Your task to perform on an android device: turn vacation reply on in the gmail app Image 0: 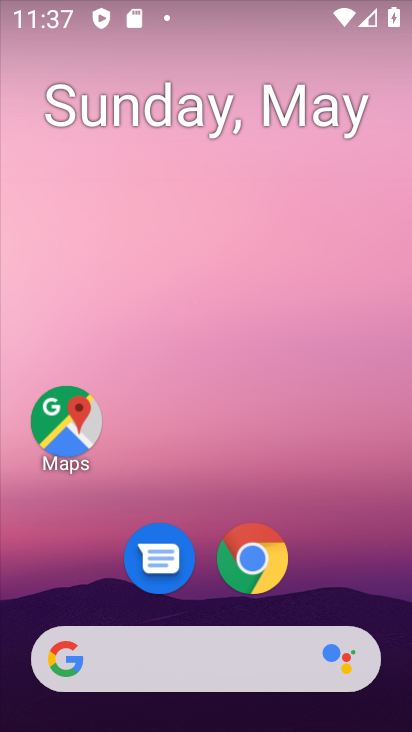
Step 0: drag from (359, 572) to (330, 86)
Your task to perform on an android device: turn vacation reply on in the gmail app Image 1: 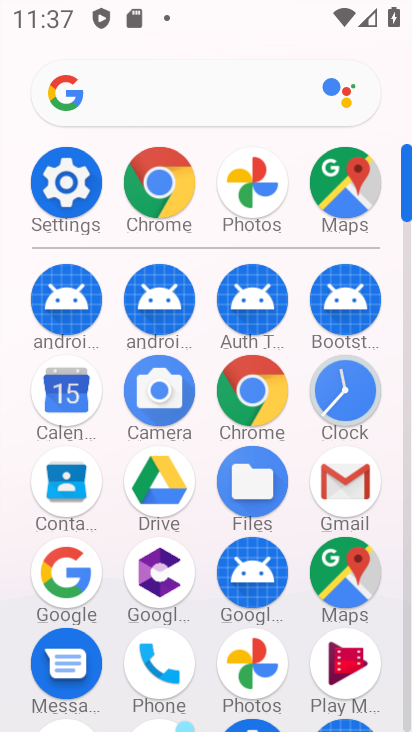
Step 1: click (332, 489)
Your task to perform on an android device: turn vacation reply on in the gmail app Image 2: 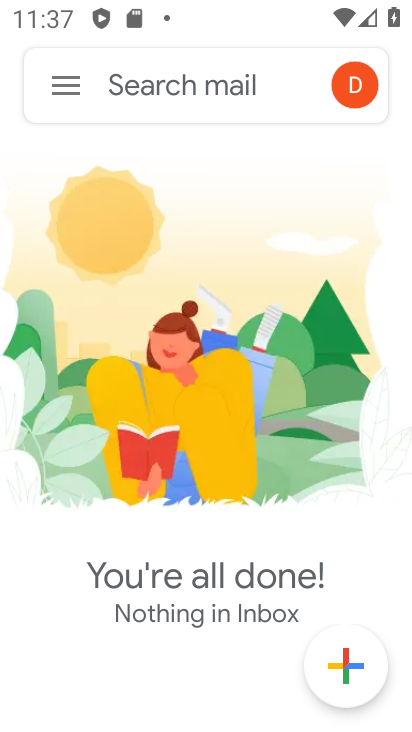
Step 2: click (48, 84)
Your task to perform on an android device: turn vacation reply on in the gmail app Image 3: 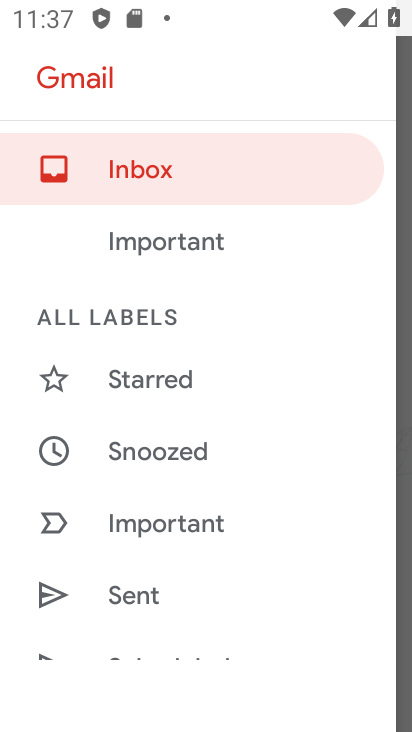
Step 3: drag from (287, 577) to (314, 366)
Your task to perform on an android device: turn vacation reply on in the gmail app Image 4: 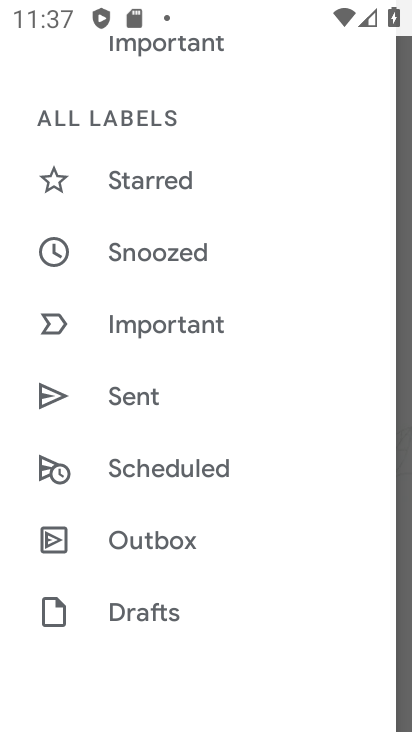
Step 4: drag from (283, 573) to (303, 279)
Your task to perform on an android device: turn vacation reply on in the gmail app Image 5: 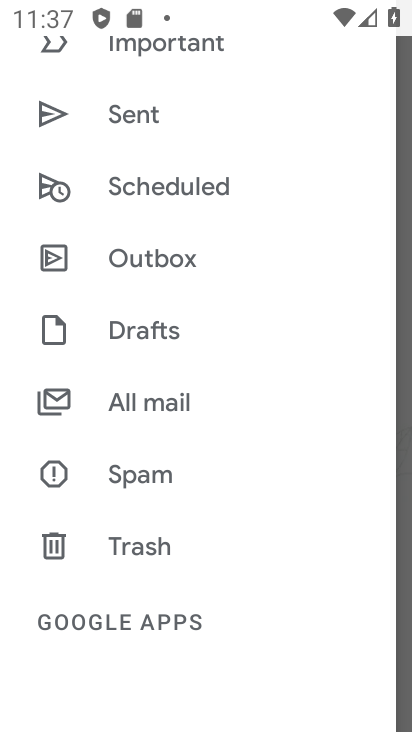
Step 5: drag from (285, 590) to (296, 375)
Your task to perform on an android device: turn vacation reply on in the gmail app Image 6: 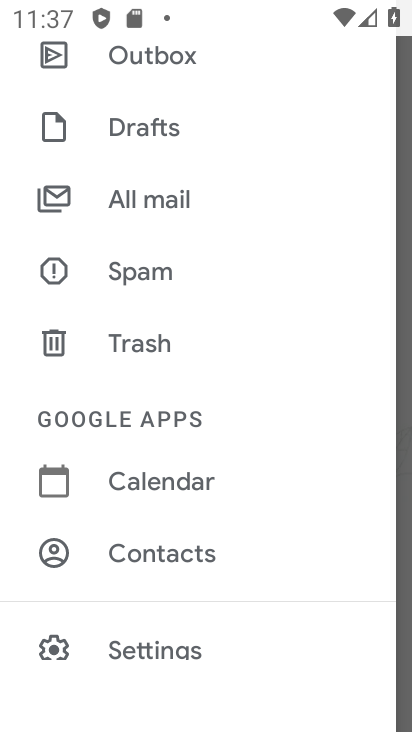
Step 6: drag from (281, 590) to (288, 412)
Your task to perform on an android device: turn vacation reply on in the gmail app Image 7: 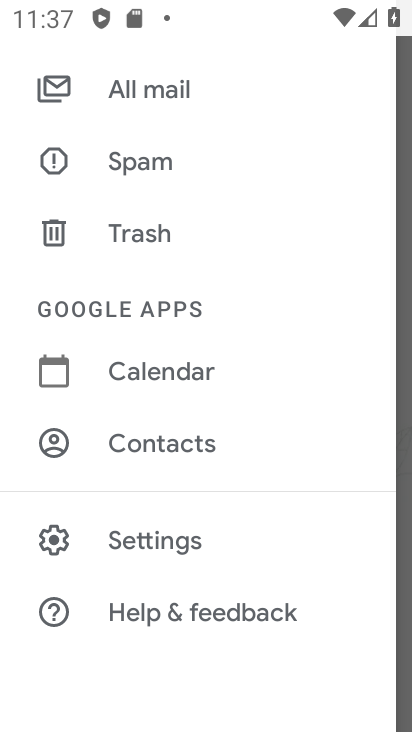
Step 7: click (173, 546)
Your task to perform on an android device: turn vacation reply on in the gmail app Image 8: 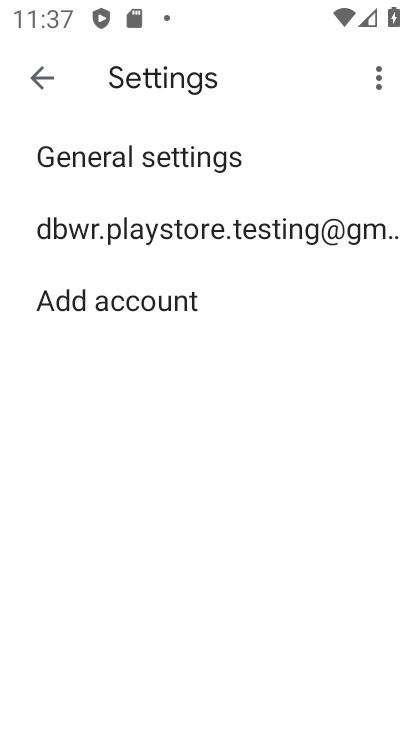
Step 8: click (193, 222)
Your task to perform on an android device: turn vacation reply on in the gmail app Image 9: 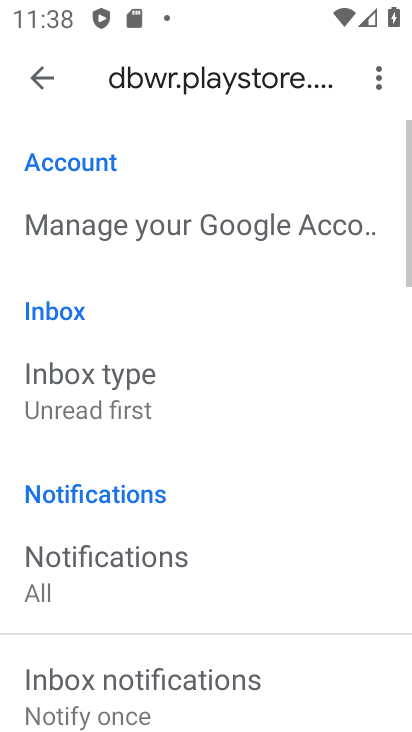
Step 9: drag from (298, 662) to (324, 382)
Your task to perform on an android device: turn vacation reply on in the gmail app Image 10: 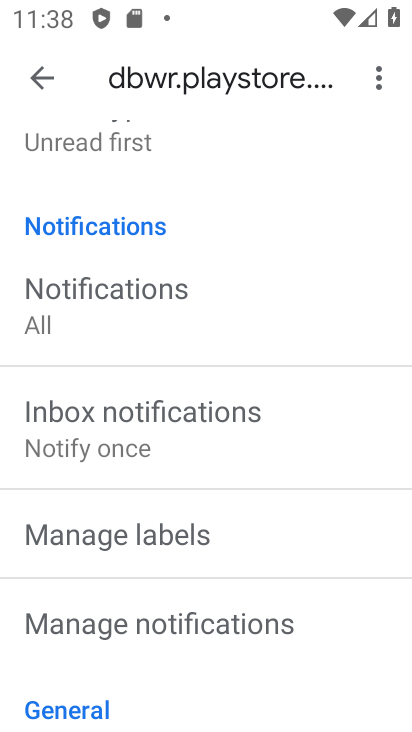
Step 10: drag from (302, 653) to (321, 473)
Your task to perform on an android device: turn vacation reply on in the gmail app Image 11: 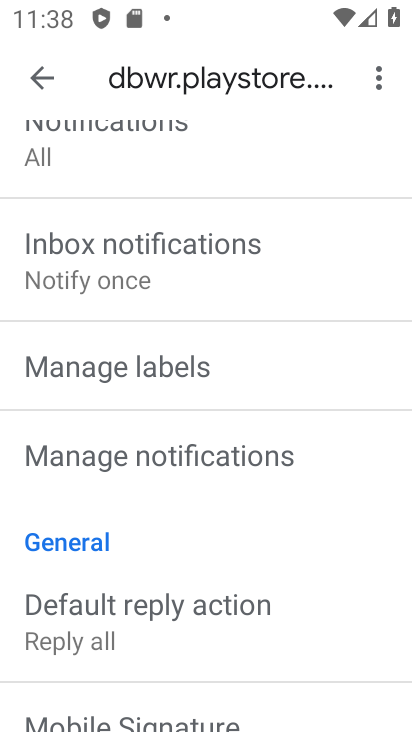
Step 11: drag from (349, 645) to (359, 314)
Your task to perform on an android device: turn vacation reply on in the gmail app Image 12: 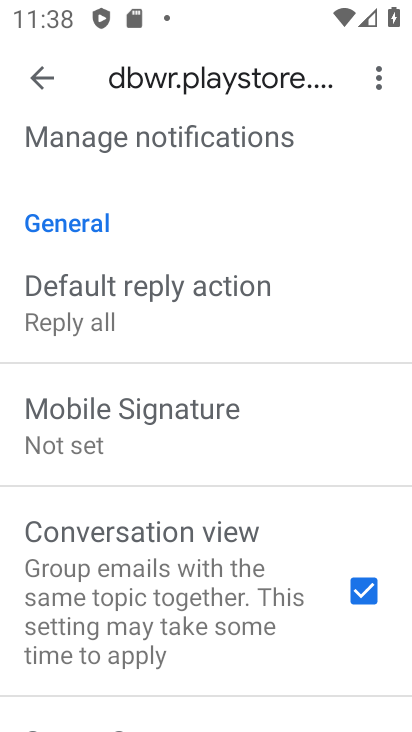
Step 12: drag from (297, 662) to (310, 389)
Your task to perform on an android device: turn vacation reply on in the gmail app Image 13: 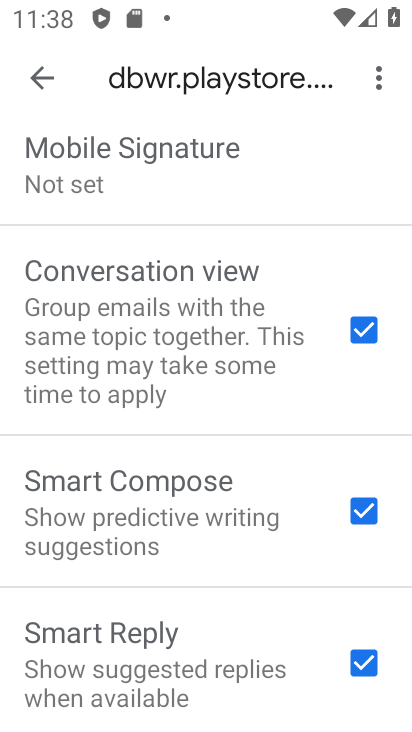
Step 13: drag from (274, 624) to (299, 408)
Your task to perform on an android device: turn vacation reply on in the gmail app Image 14: 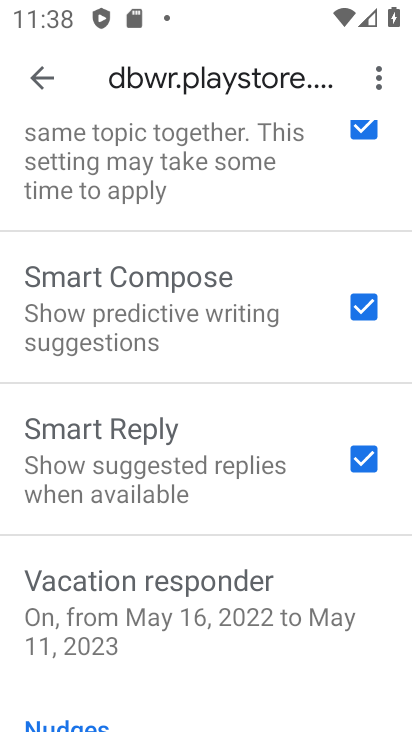
Step 14: drag from (252, 686) to (279, 400)
Your task to perform on an android device: turn vacation reply on in the gmail app Image 15: 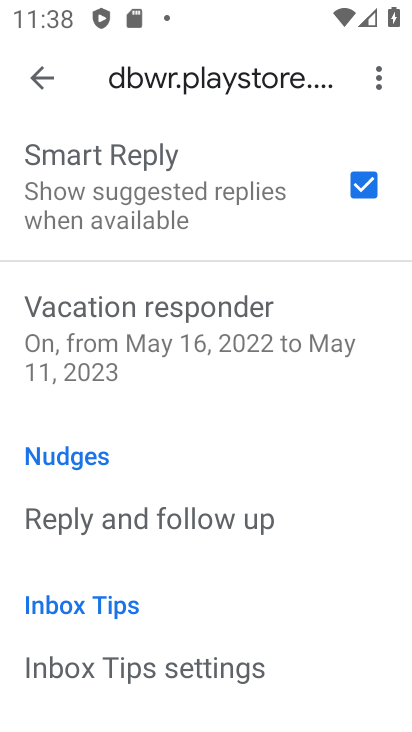
Step 15: click (222, 331)
Your task to perform on an android device: turn vacation reply on in the gmail app Image 16: 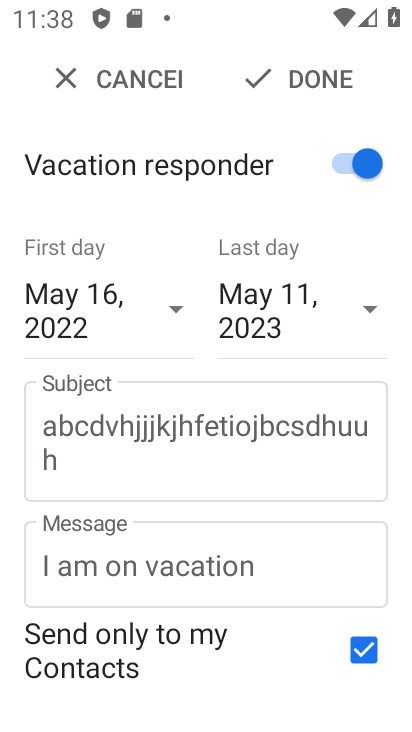
Step 16: task complete